Your task to perform on an android device: change the clock display to analog Image 0: 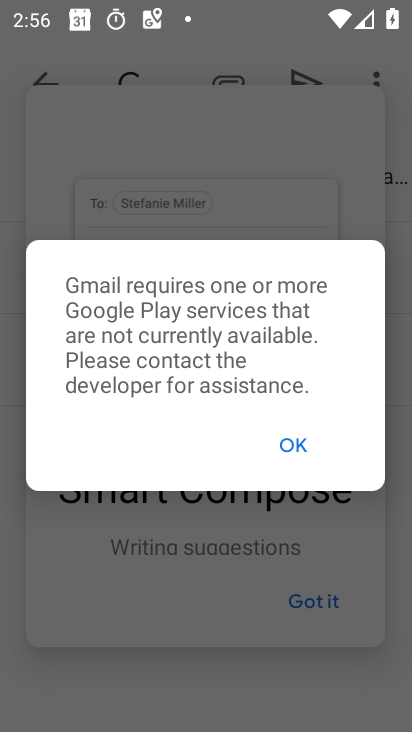
Step 0: press home button
Your task to perform on an android device: change the clock display to analog Image 1: 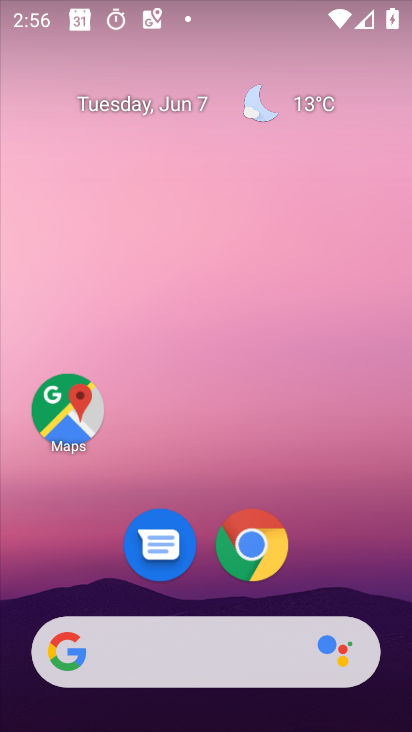
Step 1: drag from (358, 574) to (73, 21)
Your task to perform on an android device: change the clock display to analog Image 2: 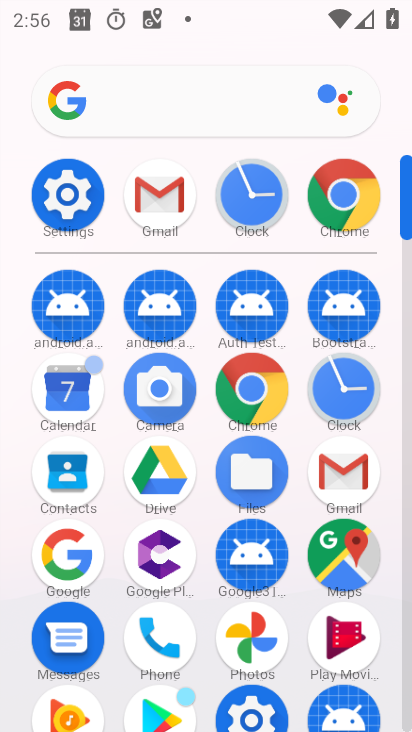
Step 2: click (295, 194)
Your task to perform on an android device: change the clock display to analog Image 3: 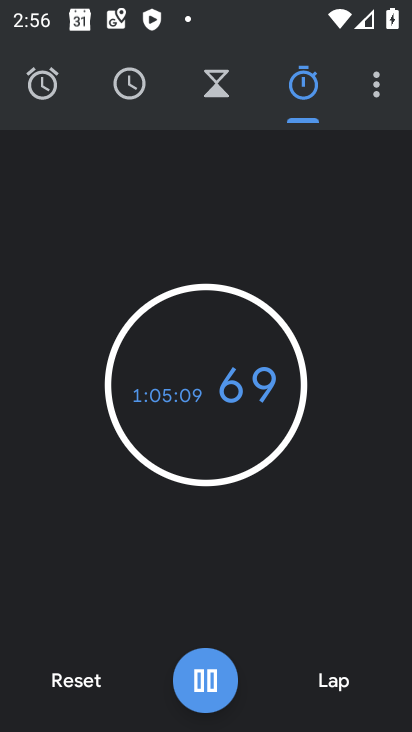
Step 3: click (381, 88)
Your task to perform on an android device: change the clock display to analog Image 4: 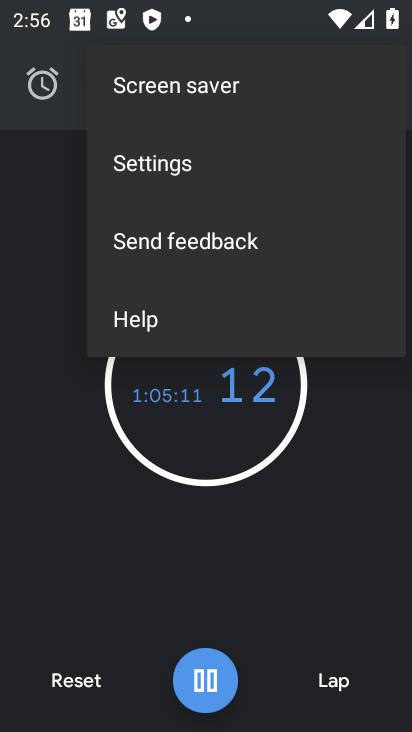
Step 4: click (208, 167)
Your task to perform on an android device: change the clock display to analog Image 5: 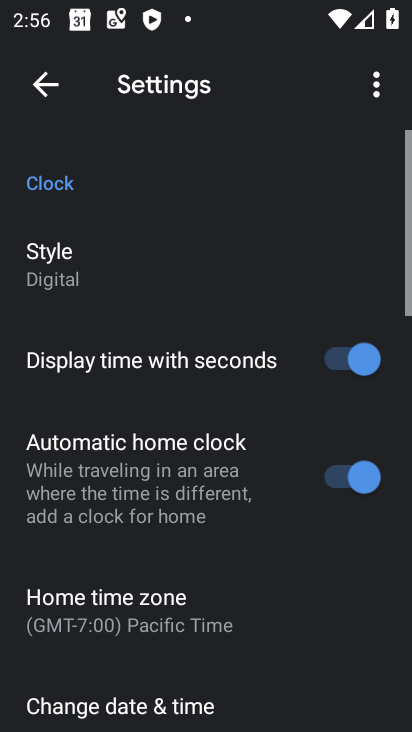
Step 5: click (124, 257)
Your task to perform on an android device: change the clock display to analog Image 6: 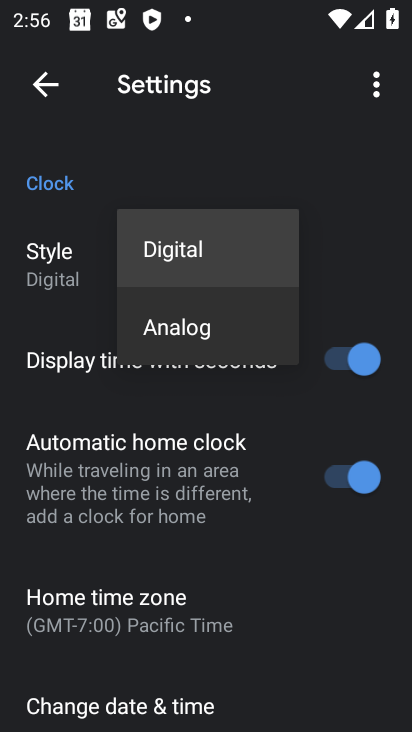
Step 6: click (166, 317)
Your task to perform on an android device: change the clock display to analog Image 7: 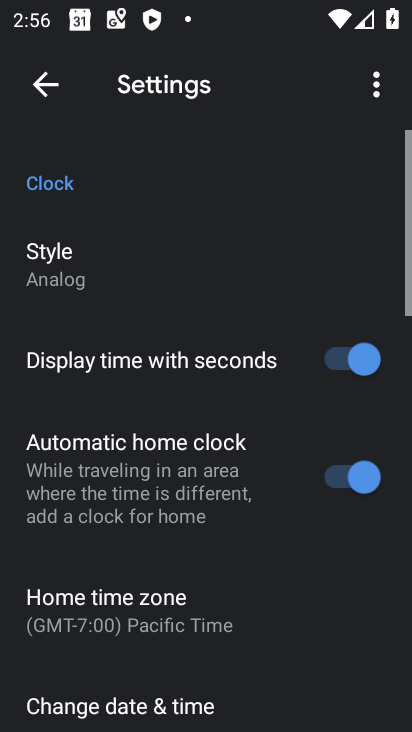
Step 7: task complete